Your task to perform on an android device: Open eBay Image 0: 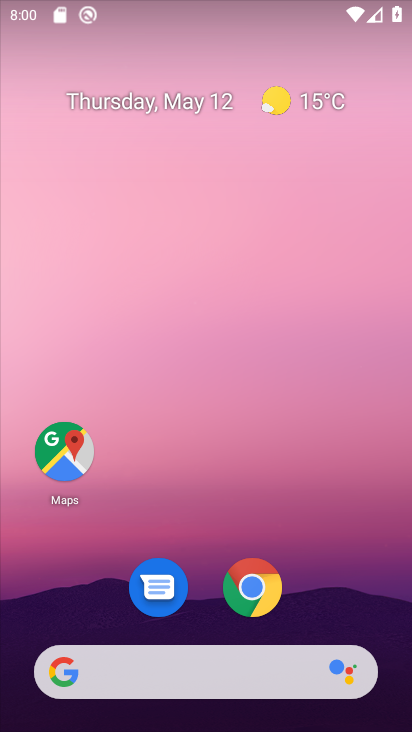
Step 0: drag from (390, 608) to (246, 17)
Your task to perform on an android device: Open eBay Image 1: 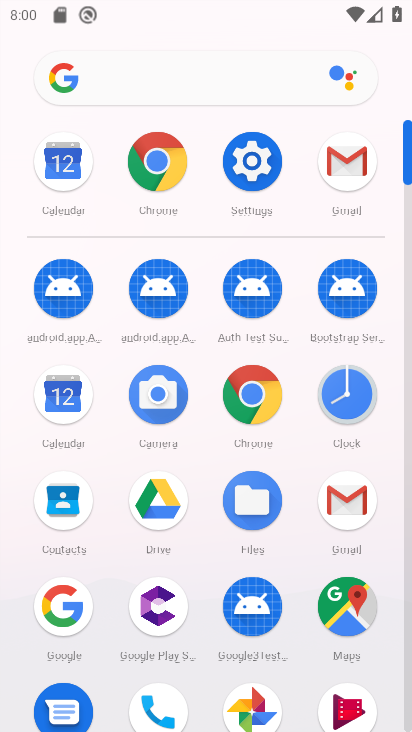
Step 1: click (260, 393)
Your task to perform on an android device: Open eBay Image 2: 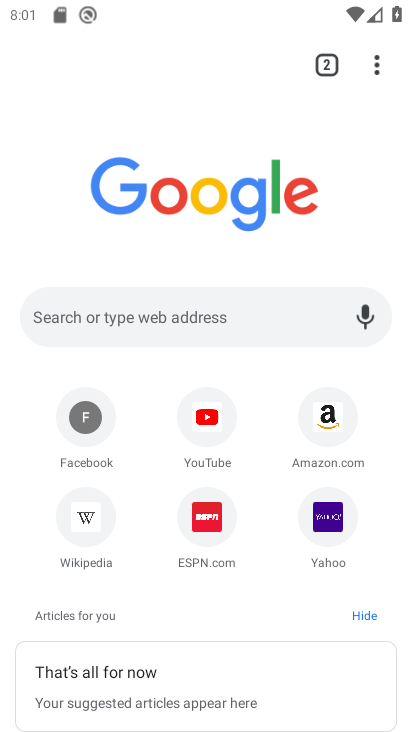
Step 2: click (169, 307)
Your task to perform on an android device: Open eBay Image 3: 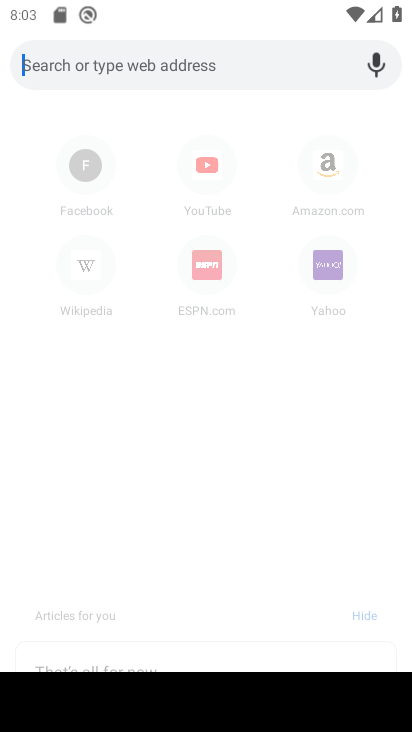
Step 3: type "ebay"
Your task to perform on an android device: Open eBay Image 4: 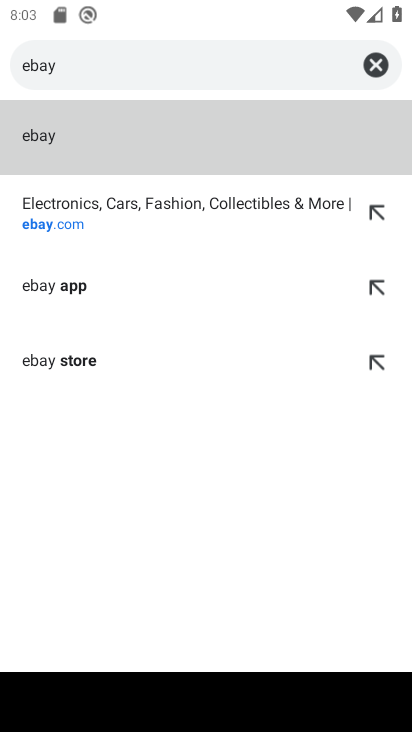
Step 4: click (69, 138)
Your task to perform on an android device: Open eBay Image 5: 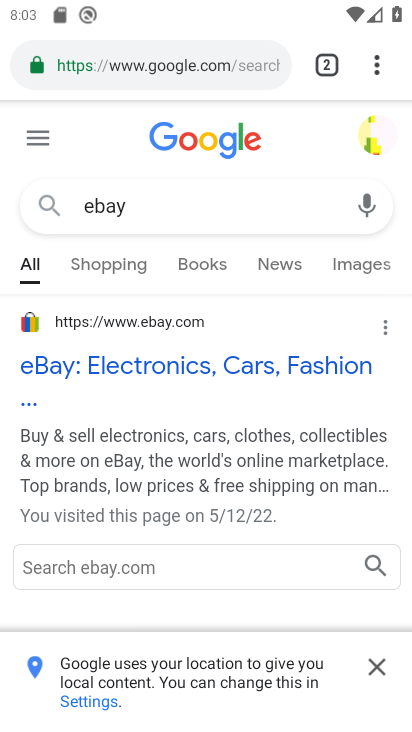
Step 5: click (209, 413)
Your task to perform on an android device: Open eBay Image 6: 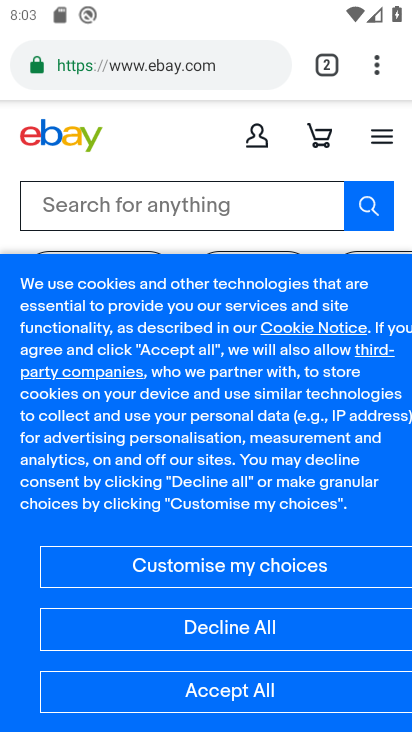
Step 6: task complete